Your task to perform on an android device: Go to Google Image 0: 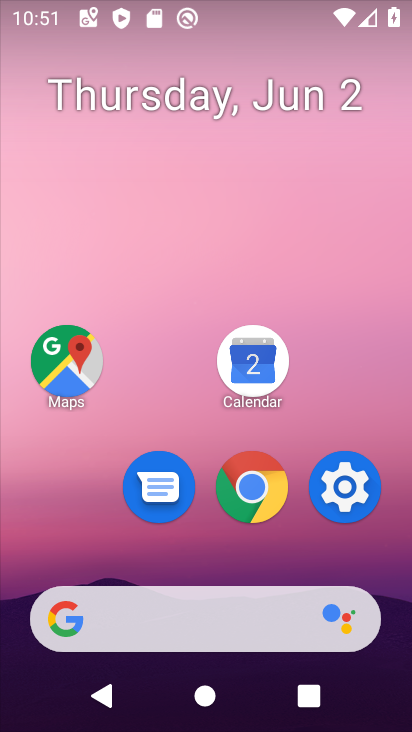
Step 0: drag from (315, 646) to (187, 13)
Your task to perform on an android device: Go to Google Image 1: 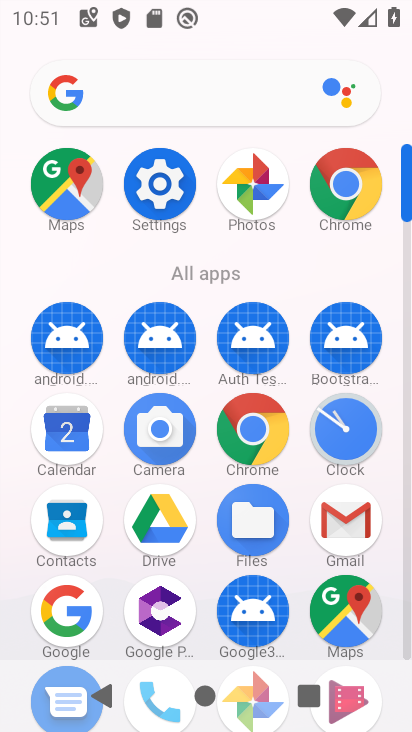
Step 1: click (64, 94)
Your task to perform on an android device: Go to Google Image 2: 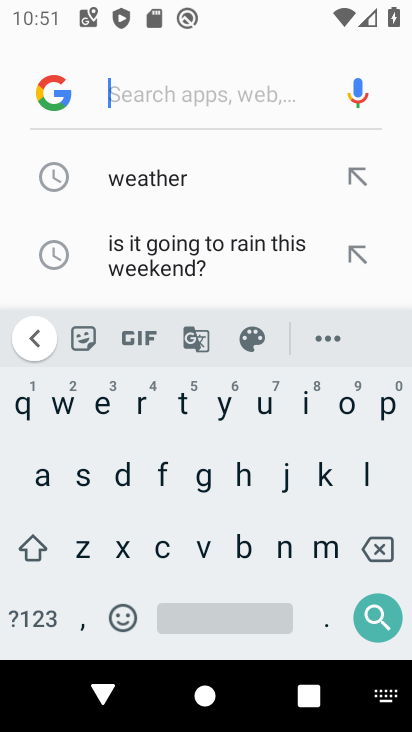
Step 2: click (35, 96)
Your task to perform on an android device: Go to Google Image 3: 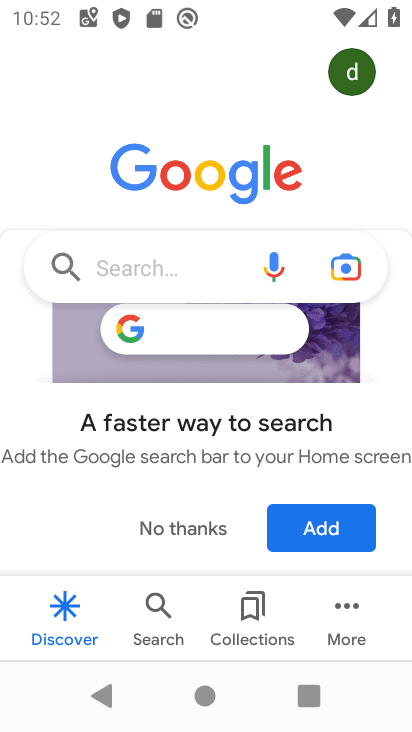
Step 3: task complete